Your task to perform on an android device: star an email in the gmail app Image 0: 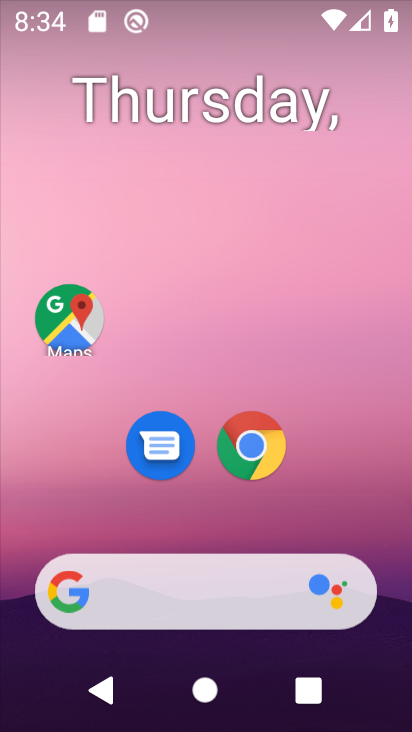
Step 0: drag from (208, 333) to (225, 2)
Your task to perform on an android device: star an email in the gmail app Image 1: 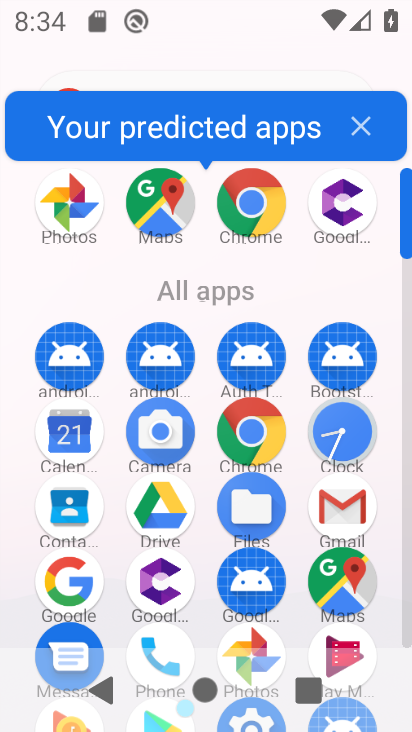
Step 1: click (355, 497)
Your task to perform on an android device: star an email in the gmail app Image 2: 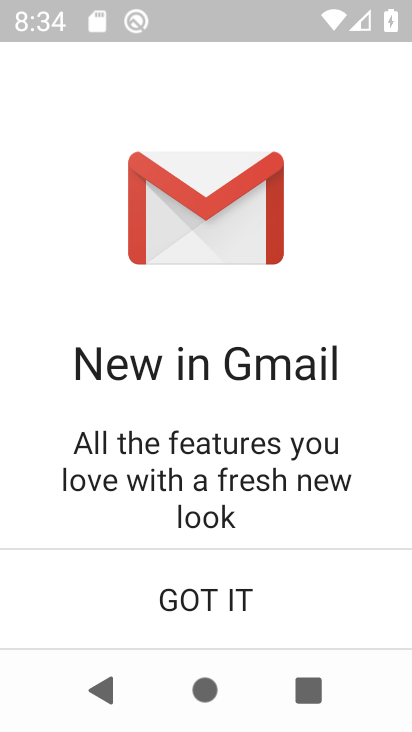
Step 2: click (217, 586)
Your task to perform on an android device: star an email in the gmail app Image 3: 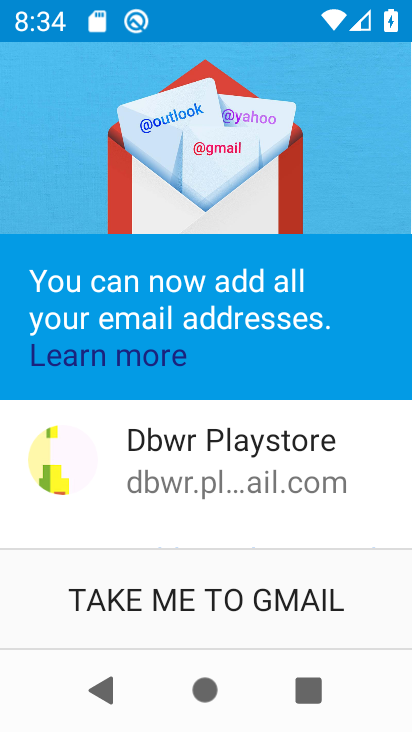
Step 3: click (213, 597)
Your task to perform on an android device: star an email in the gmail app Image 4: 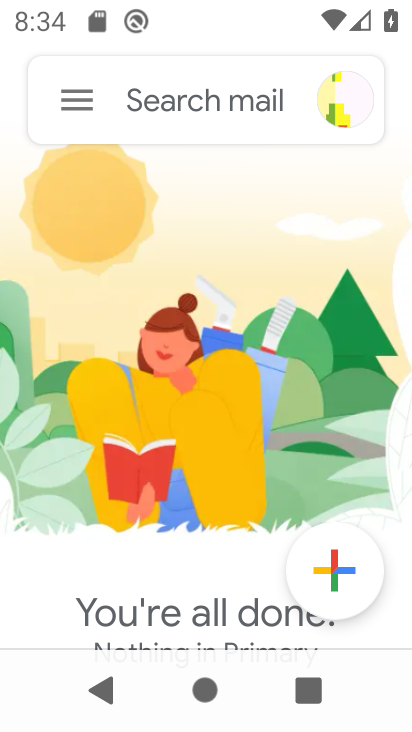
Step 4: task complete